Your task to perform on an android device: install app "Chime – Mobile Banking" Image 0: 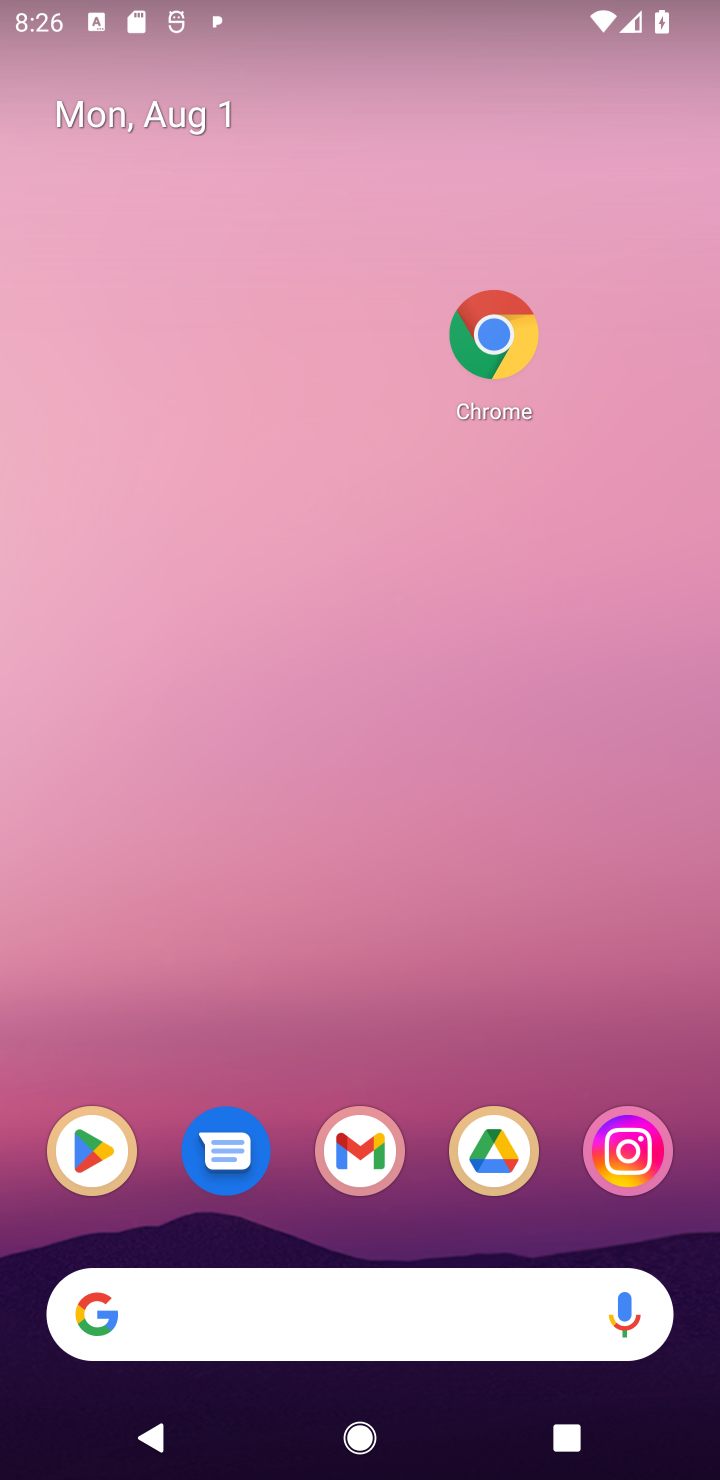
Step 0: click (95, 1171)
Your task to perform on an android device: install app "Chime – Mobile Banking" Image 1: 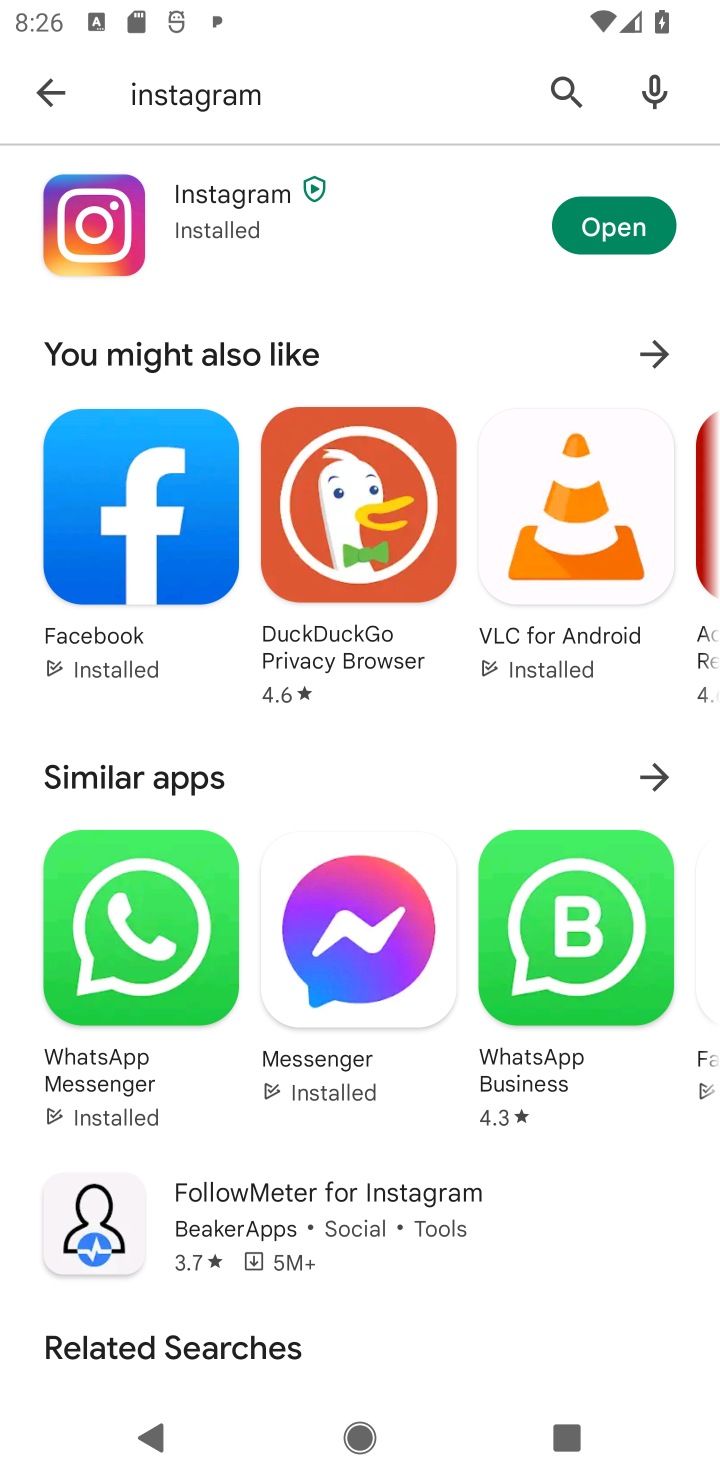
Step 1: click (559, 93)
Your task to perform on an android device: install app "Chime – Mobile Banking" Image 2: 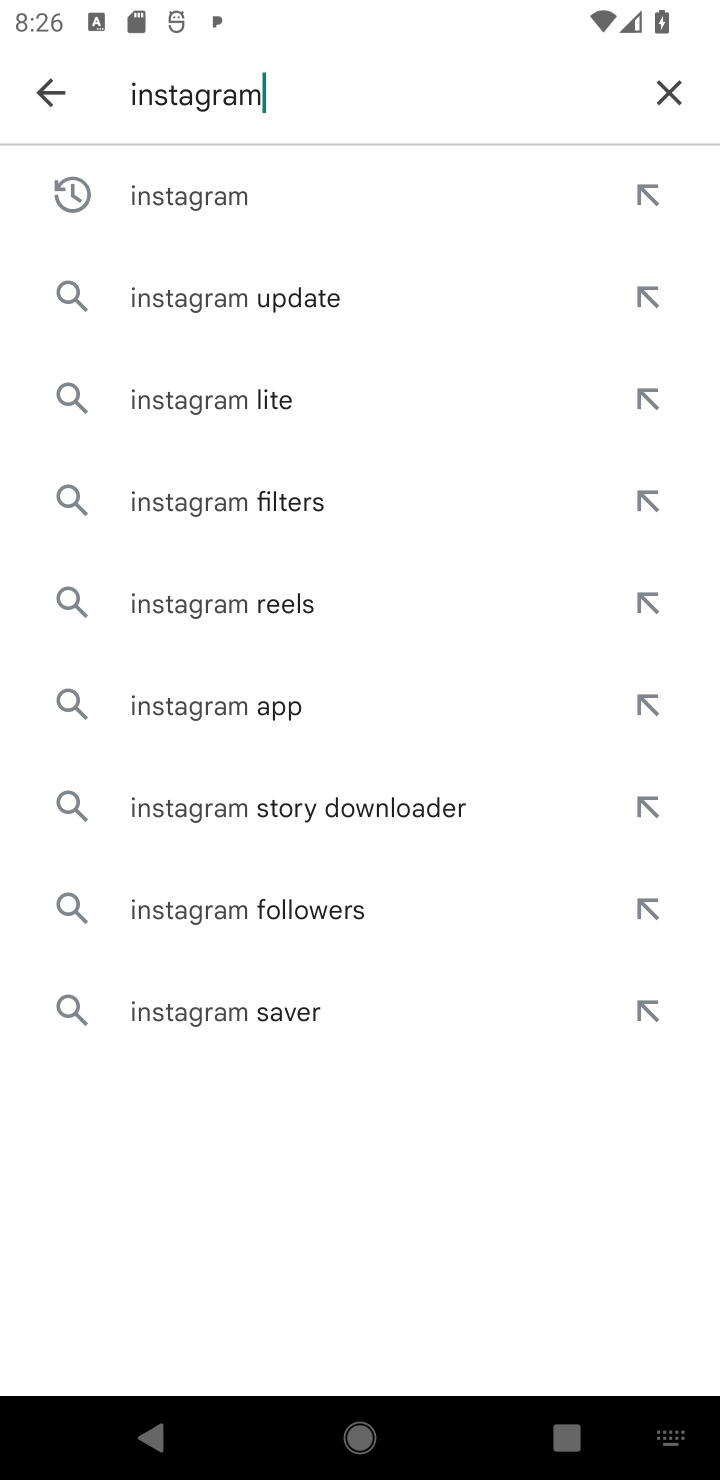
Step 2: click (676, 109)
Your task to perform on an android device: install app "Chime – Mobile Banking" Image 3: 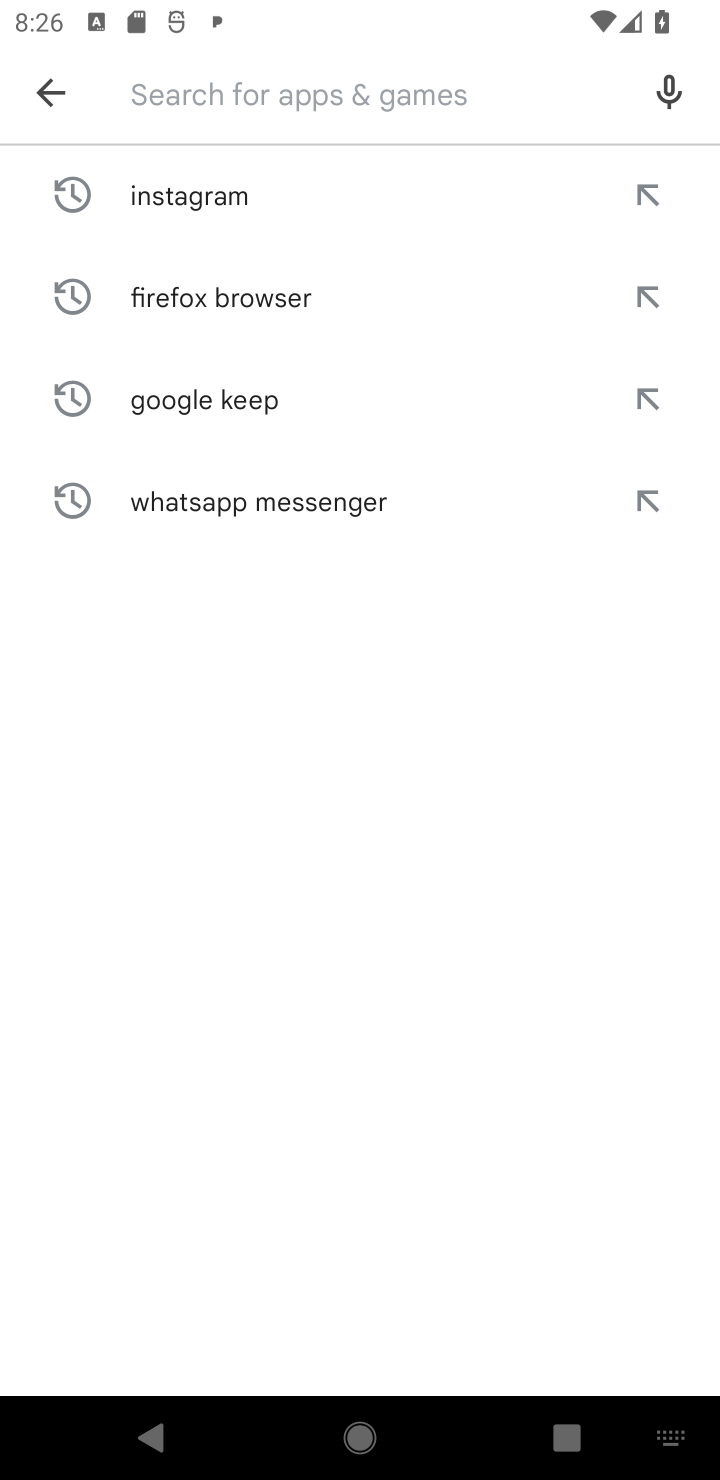
Step 3: type "Chime – Mobile Banking"
Your task to perform on an android device: install app "Chime – Mobile Banking" Image 4: 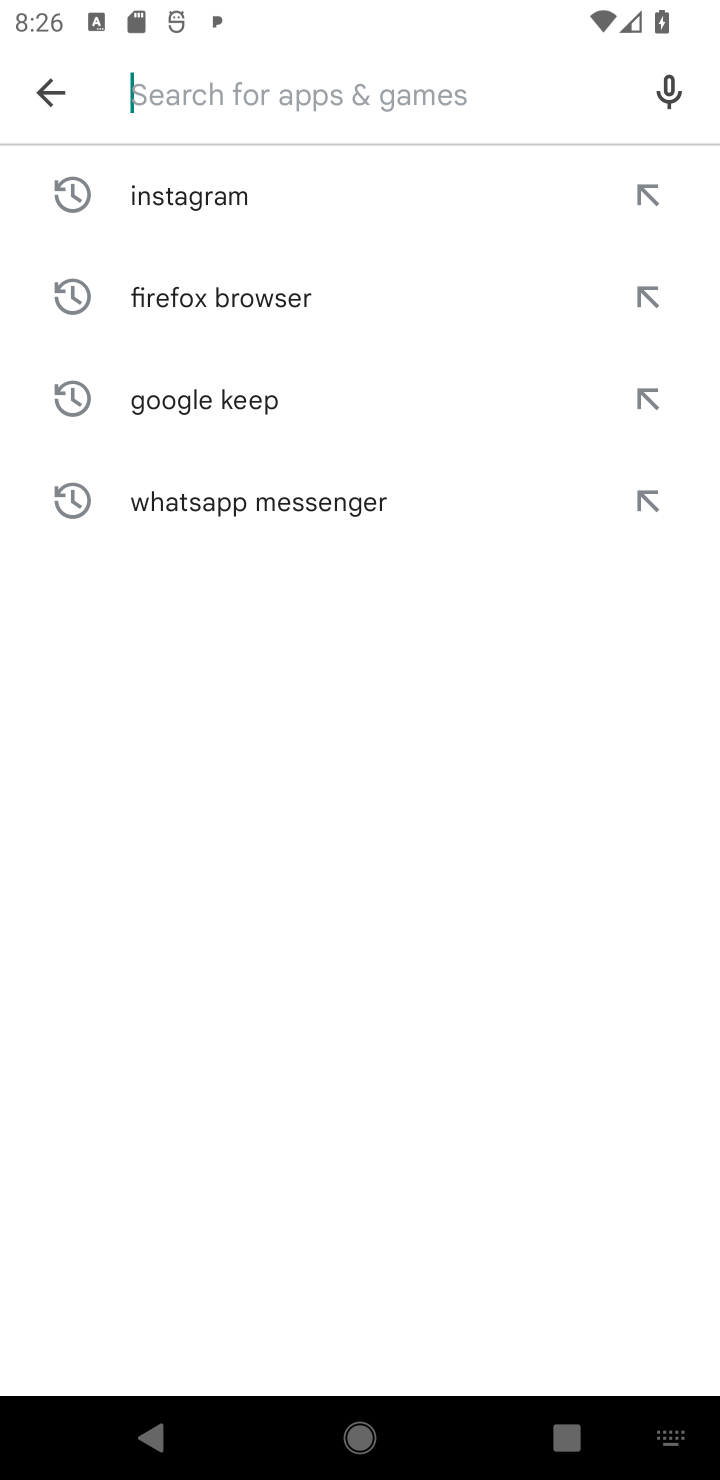
Step 4: type "Chime  Mobile Banking"
Your task to perform on an android device: install app "Chime – Mobile Banking" Image 5: 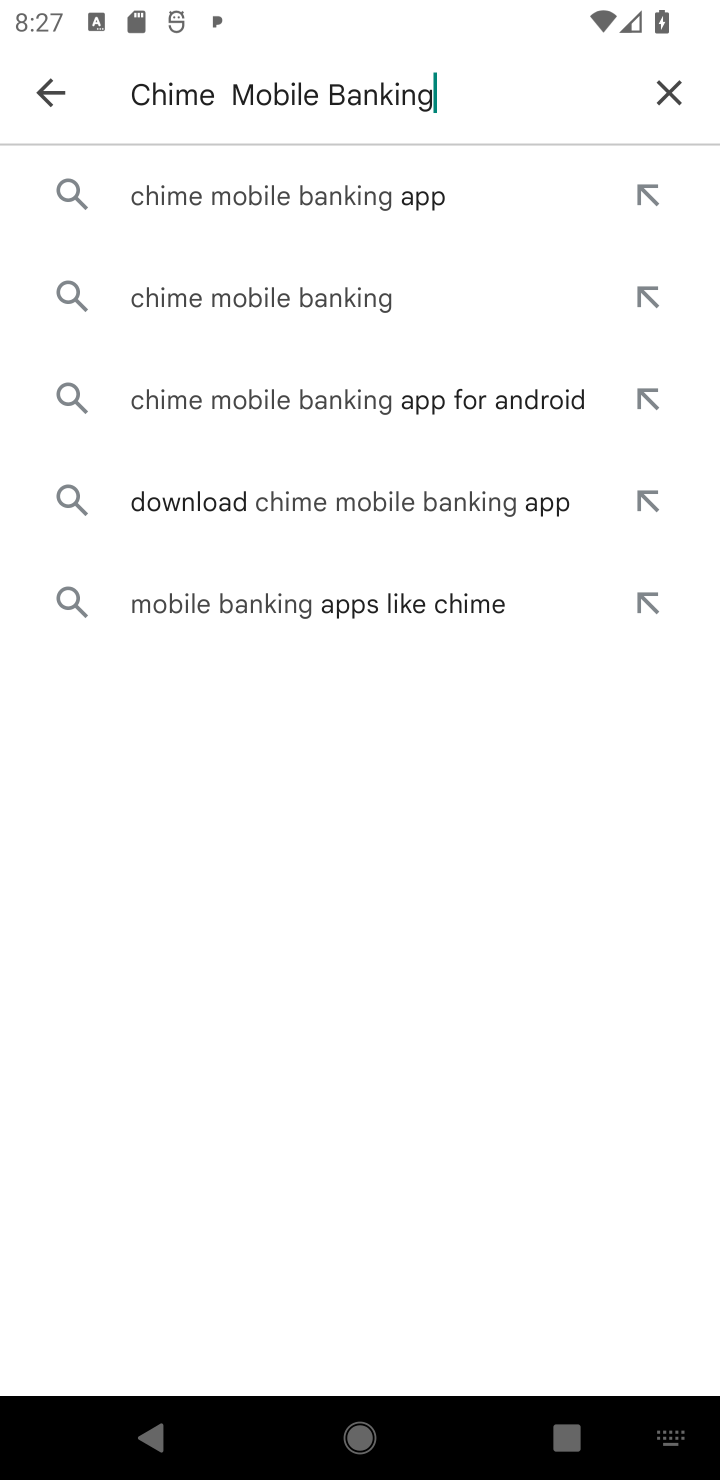
Step 5: click (348, 207)
Your task to perform on an android device: install app "Chime – Mobile Banking" Image 6: 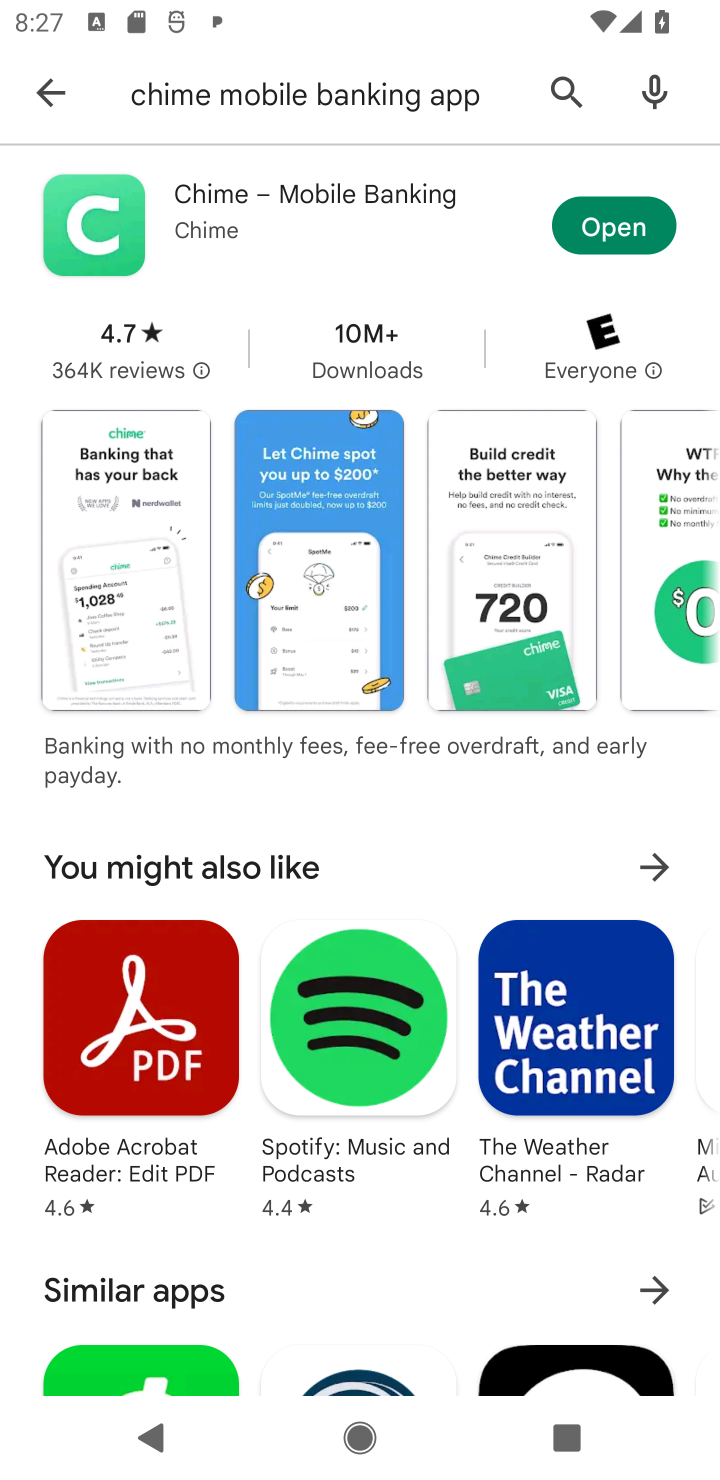
Step 6: task complete